Your task to perform on an android device: open a new tab in the chrome app Image 0: 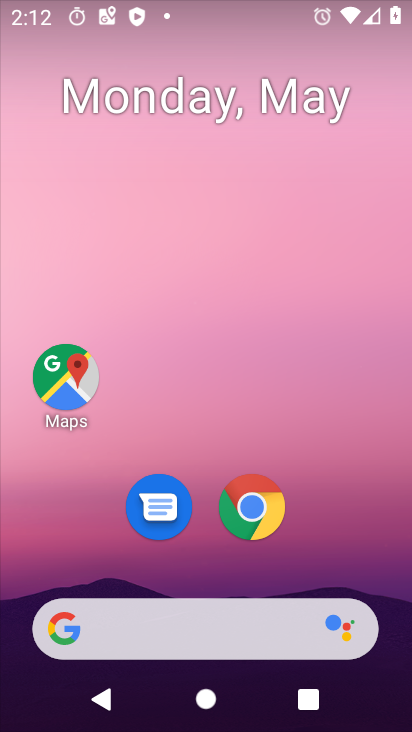
Step 0: click (245, 501)
Your task to perform on an android device: open a new tab in the chrome app Image 1: 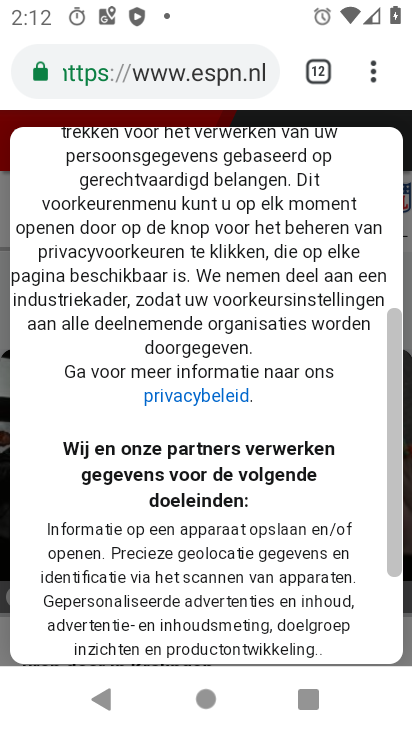
Step 1: click (374, 80)
Your task to perform on an android device: open a new tab in the chrome app Image 2: 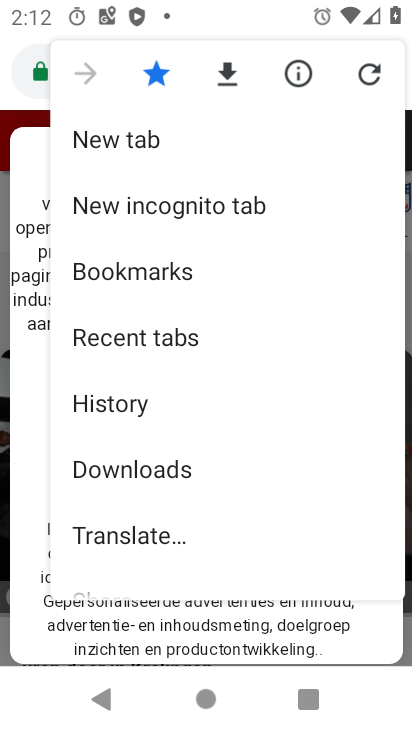
Step 2: click (119, 137)
Your task to perform on an android device: open a new tab in the chrome app Image 3: 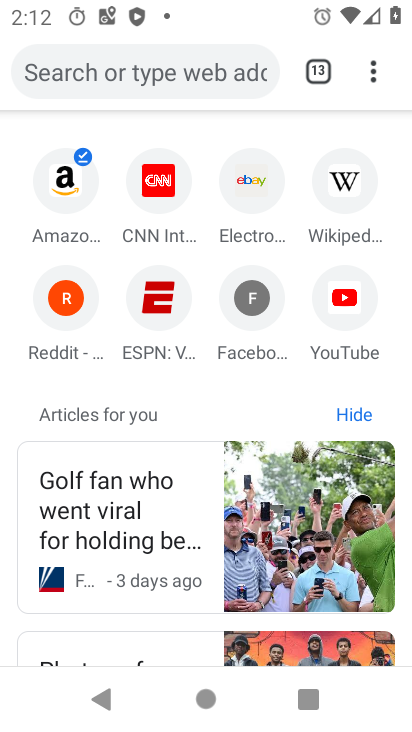
Step 3: task complete